Your task to perform on an android device: Open Youtube and go to the subscriptions tab Image 0: 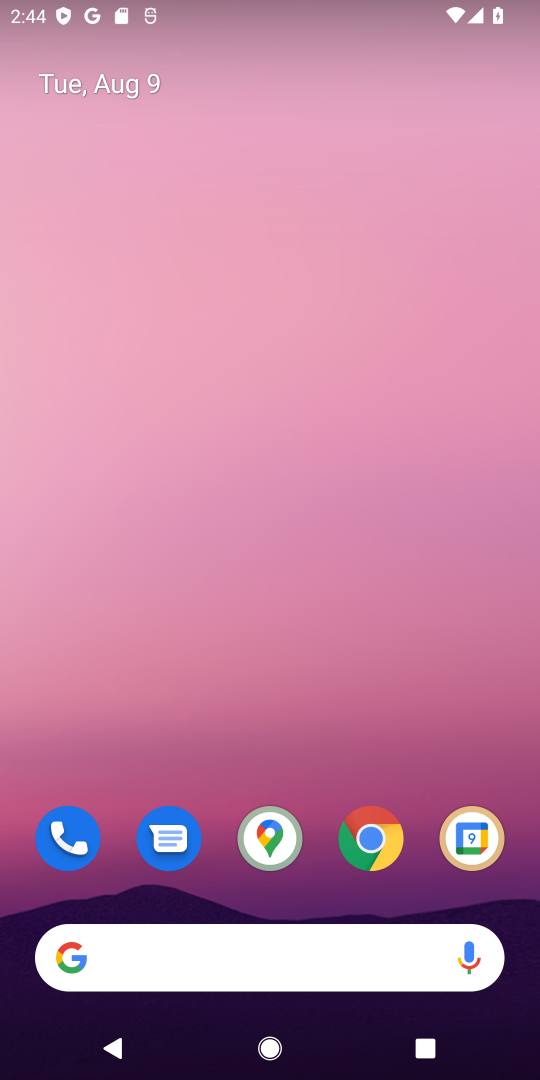
Step 0: drag from (341, 749) to (350, 4)
Your task to perform on an android device: Open Youtube and go to the subscriptions tab Image 1: 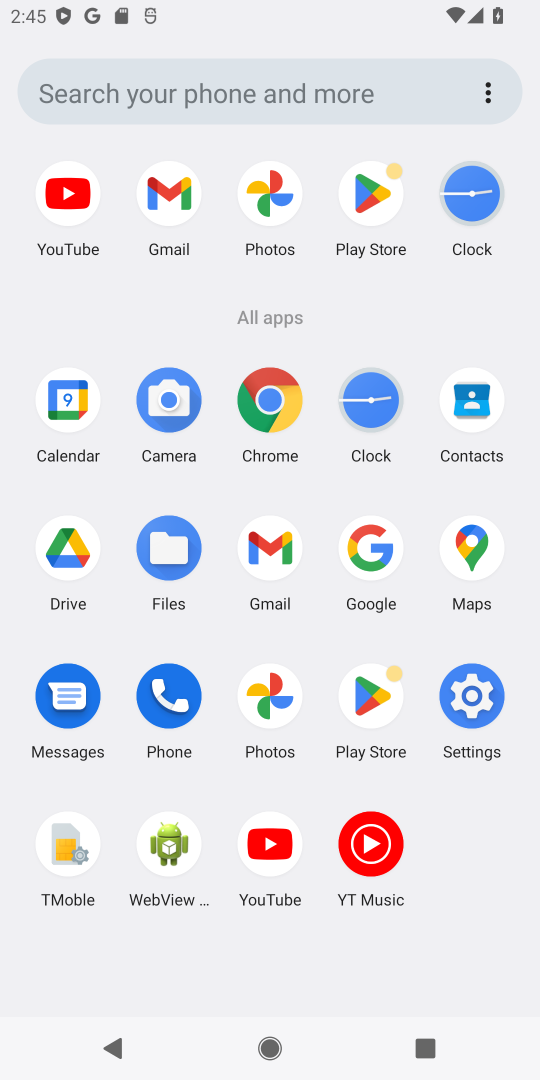
Step 1: click (267, 834)
Your task to perform on an android device: Open Youtube and go to the subscriptions tab Image 2: 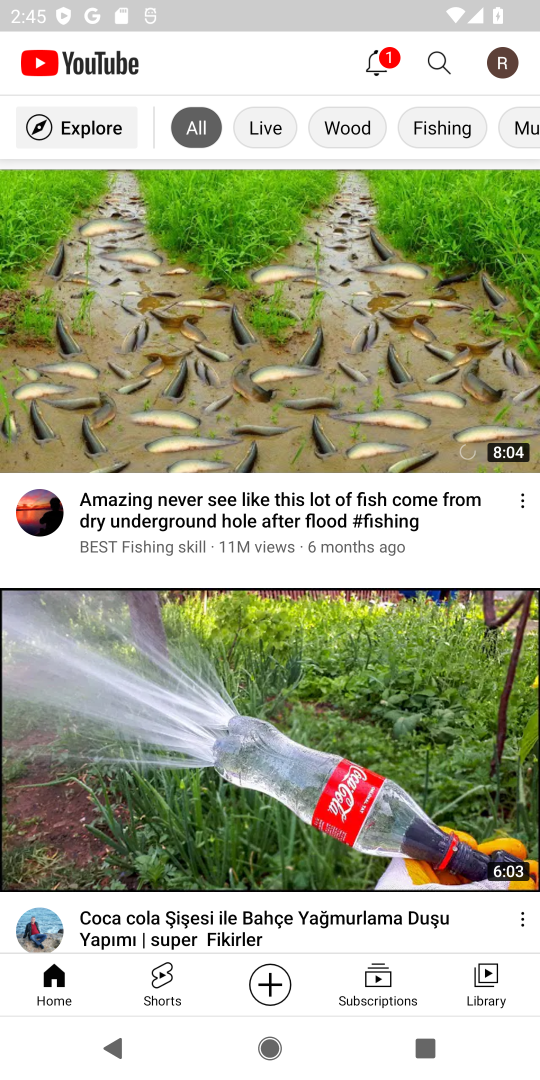
Step 2: click (365, 988)
Your task to perform on an android device: Open Youtube and go to the subscriptions tab Image 3: 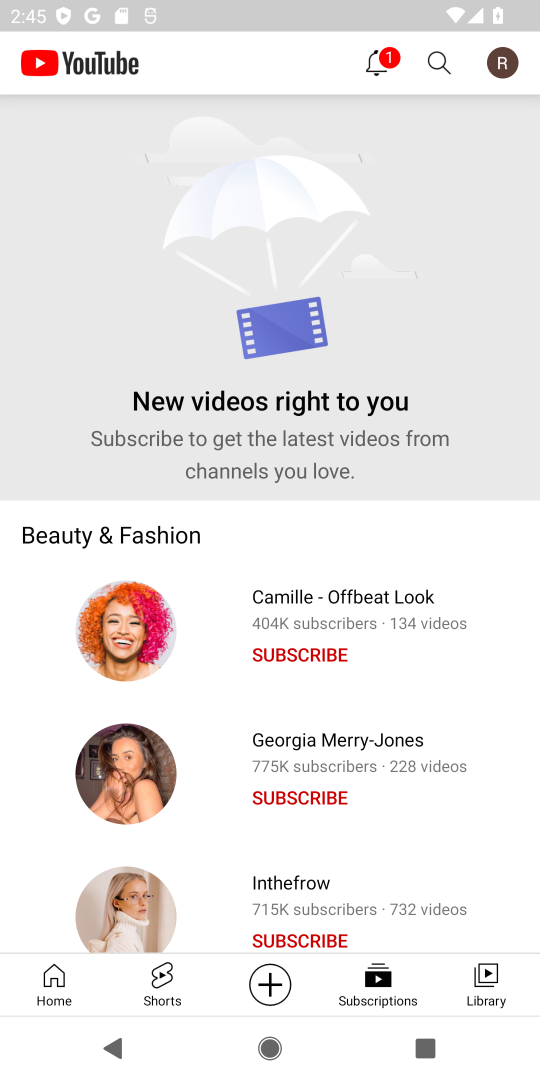
Step 3: task complete